Your task to perform on an android device: Search for pizza restaurants on Maps Image 0: 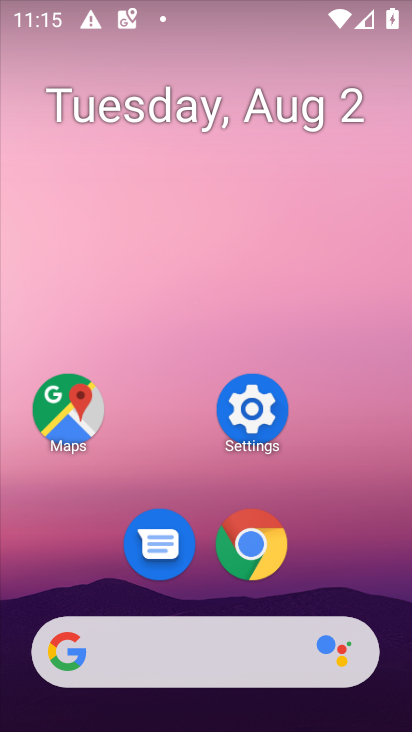
Step 0: press home button
Your task to perform on an android device: Search for pizza restaurants on Maps Image 1: 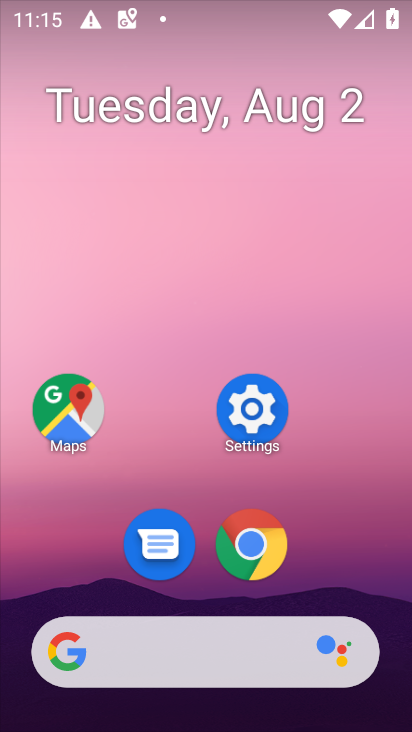
Step 1: click (71, 419)
Your task to perform on an android device: Search for pizza restaurants on Maps Image 2: 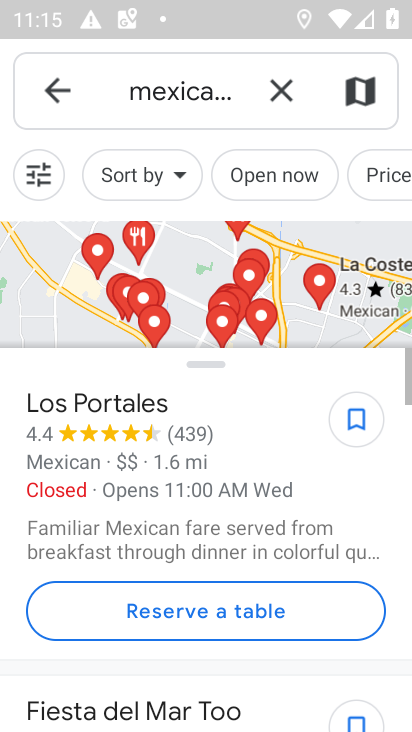
Step 2: click (278, 91)
Your task to perform on an android device: Search for pizza restaurants on Maps Image 3: 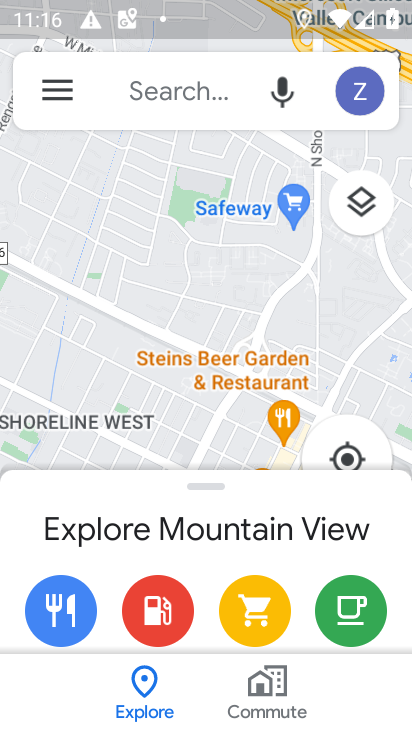
Step 3: type "pizza restaurants"
Your task to perform on an android device: Search for pizza restaurants on Maps Image 4: 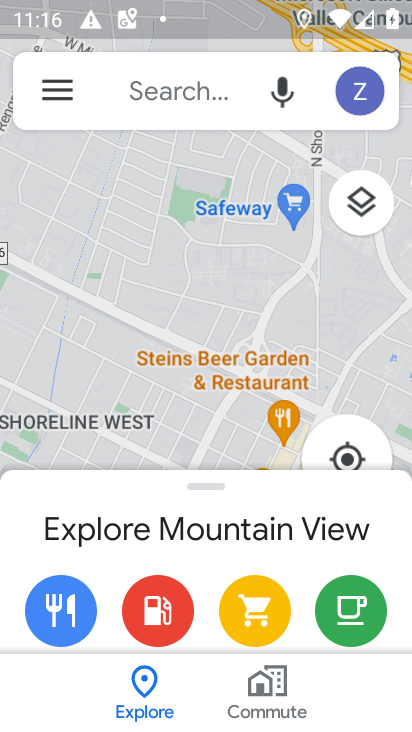
Step 4: click (136, 86)
Your task to perform on an android device: Search for pizza restaurants on Maps Image 5: 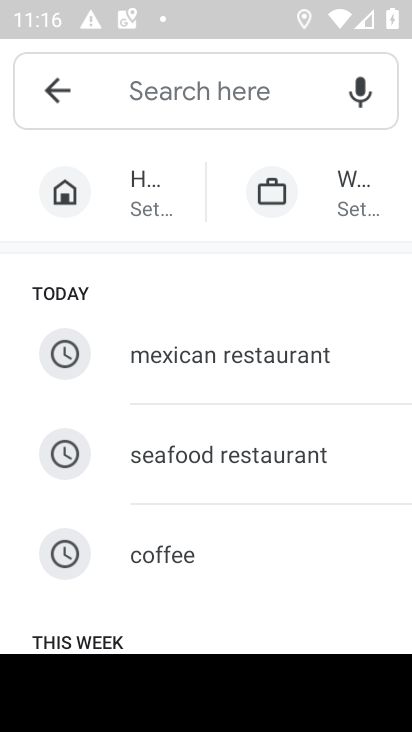
Step 5: type "pizza restaurants"
Your task to perform on an android device: Search for pizza restaurants on Maps Image 6: 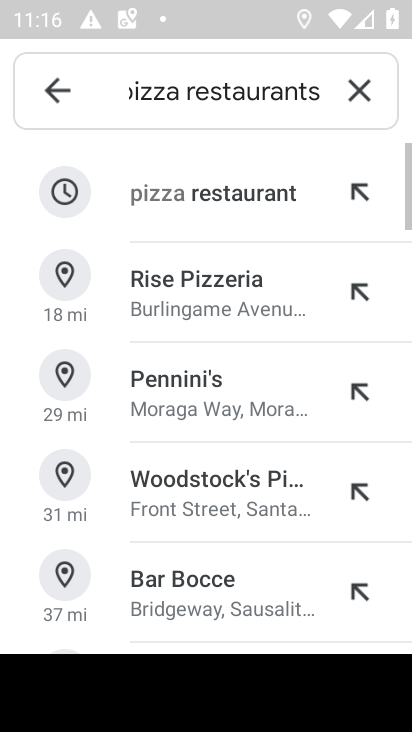
Step 6: click (186, 197)
Your task to perform on an android device: Search for pizza restaurants on Maps Image 7: 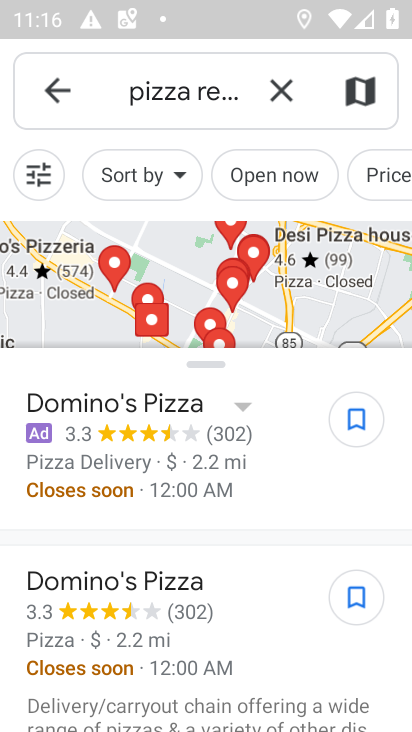
Step 7: task complete